Your task to perform on an android device: change the clock display to show seconds Image 0: 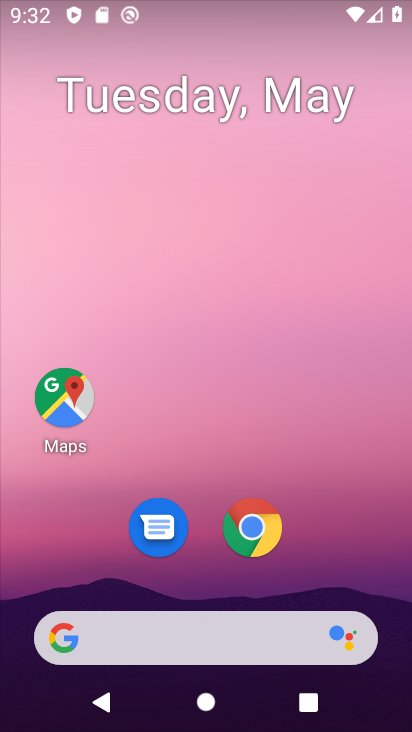
Step 0: drag from (220, 587) to (170, 142)
Your task to perform on an android device: change the clock display to show seconds Image 1: 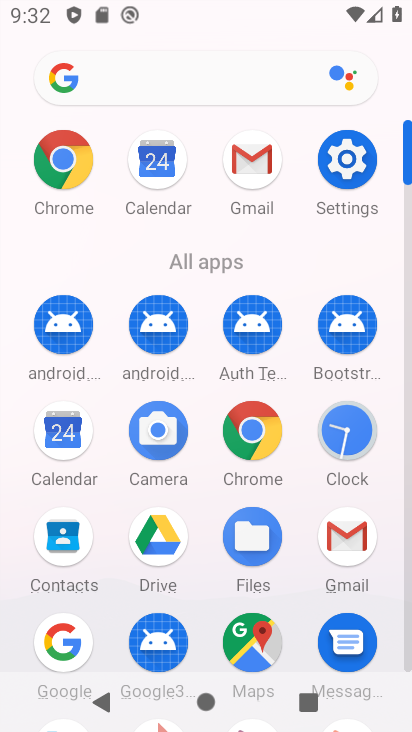
Step 1: click (336, 434)
Your task to perform on an android device: change the clock display to show seconds Image 2: 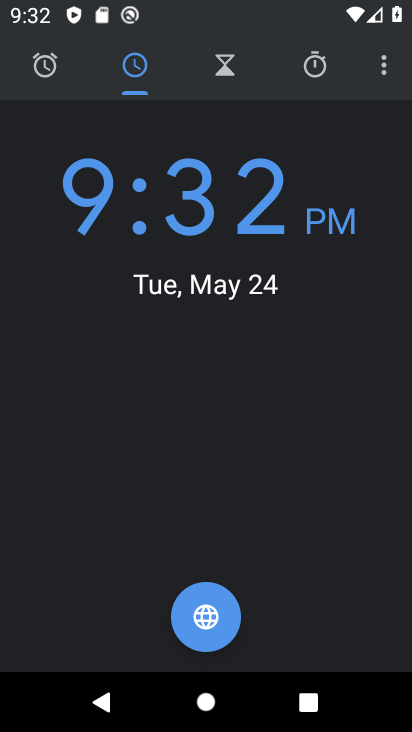
Step 2: click (398, 75)
Your task to perform on an android device: change the clock display to show seconds Image 3: 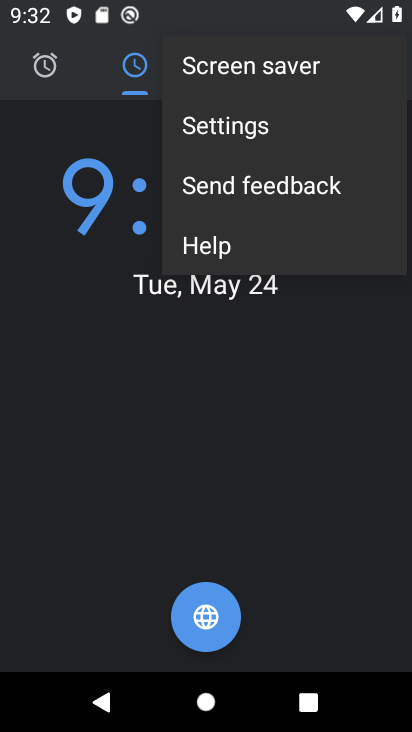
Step 3: click (224, 124)
Your task to perform on an android device: change the clock display to show seconds Image 4: 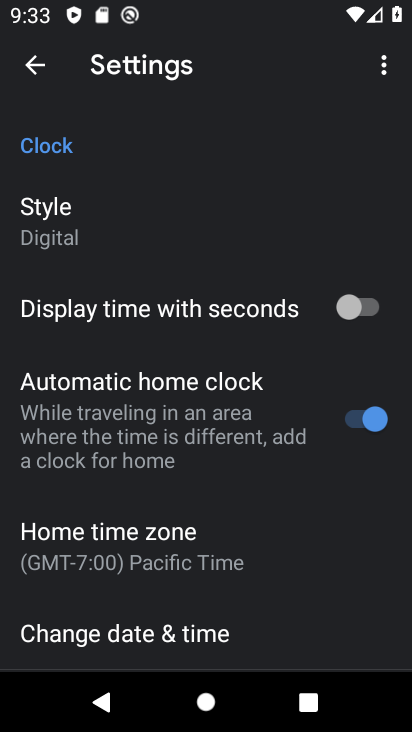
Step 4: drag from (145, 603) to (56, 0)
Your task to perform on an android device: change the clock display to show seconds Image 5: 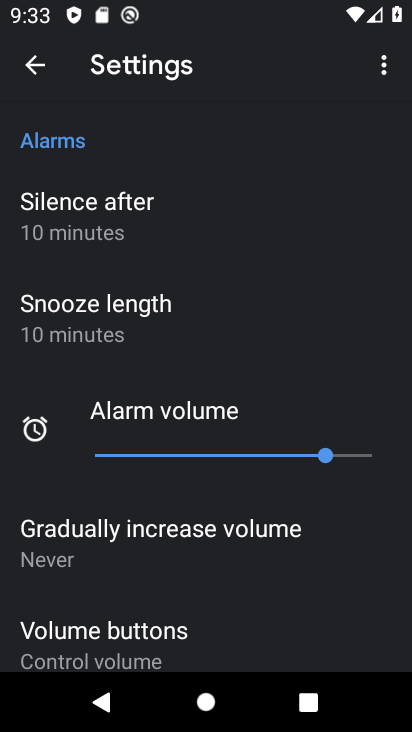
Step 5: drag from (224, 155) to (237, 555)
Your task to perform on an android device: change the clock display to show seconds Image 6: 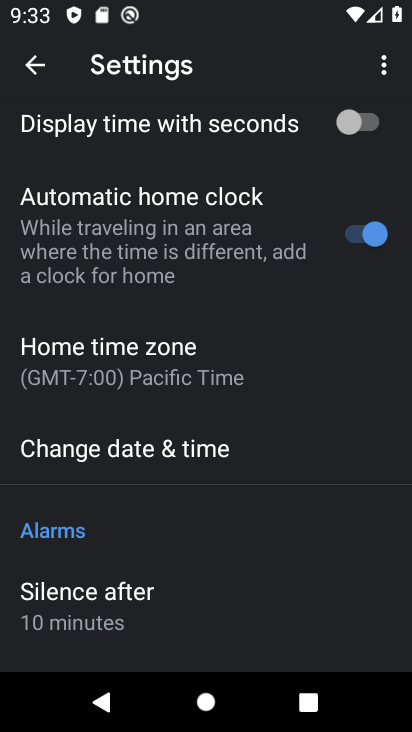
Step 6: click (355, 117)
Your task to perform on an android device: change the clock display to show seconds Image 7: 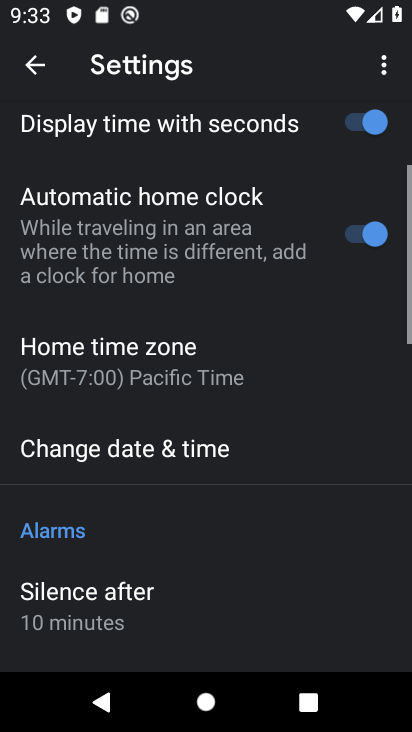
Step 7: task complete